Your task to perform on an android device: Open battery settings Image 0: 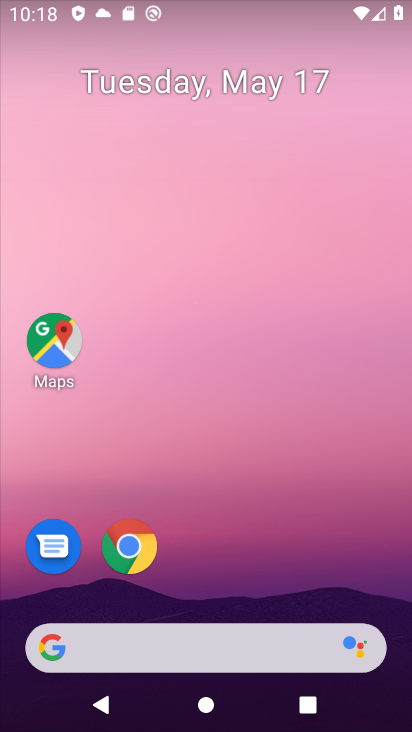
Step 0: drag from (256, 619) to (269, 260)
Your task to perform on an android device: Open battery settings Image 1: 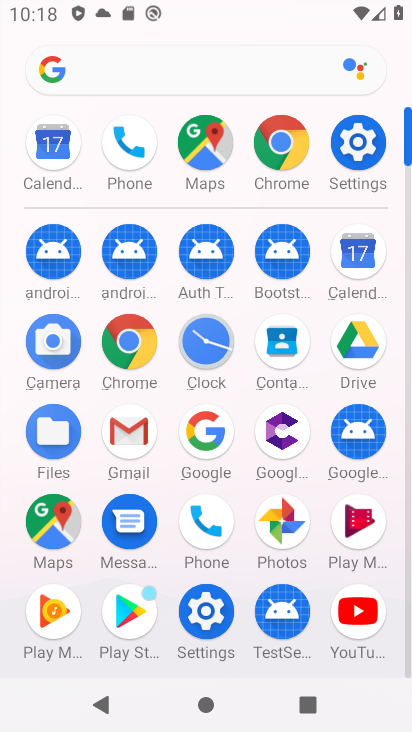
Step 1: click (342, 145)
Your task to perform on an android device: Open battery settings Image 2: 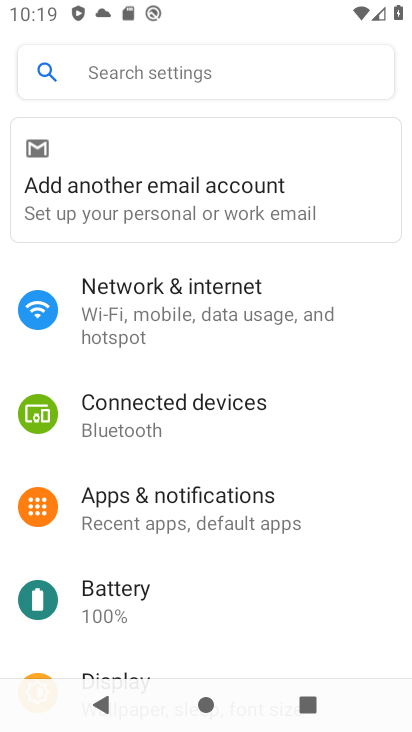
Step 2: click (110, 613)
Your task to perform on an android device: Open battery settings Image 3: 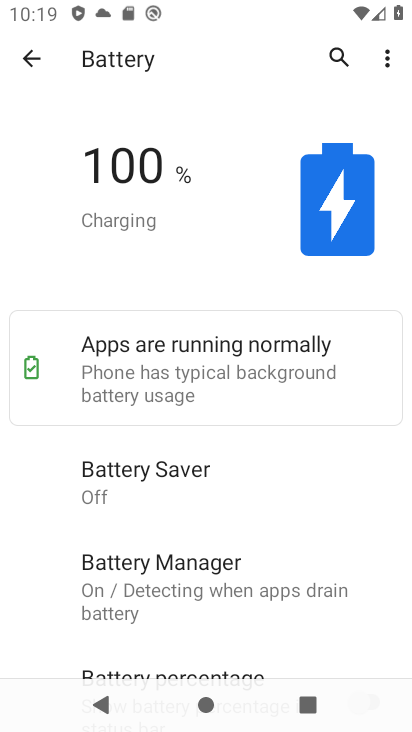
Step 3: task complete